Your task to perform on an android device: Do I have any events this weekend? Image 0: 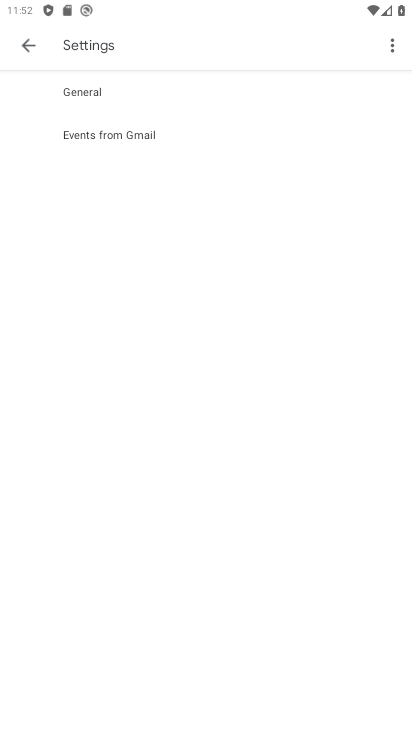
Step 0: press home button
Your task to perform on an android device: Do I have any events this weekend? Image 1: 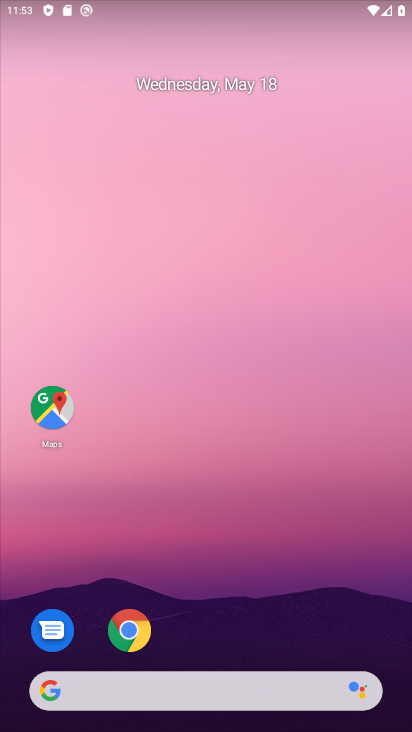
Step 1: drag from (175, 603) to (206, 185)
Your task to perform on an android device: Do I have any events this weekend? Image 2: 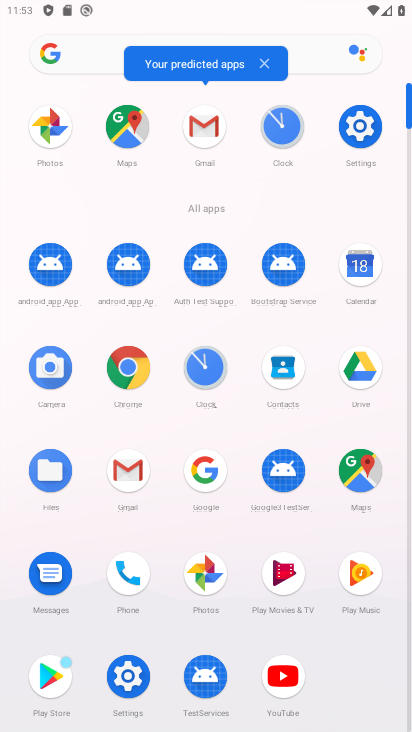
Step 2: click (364, 266)
Your task to perform on an android device: Do I have any events this weekend? Image 3: 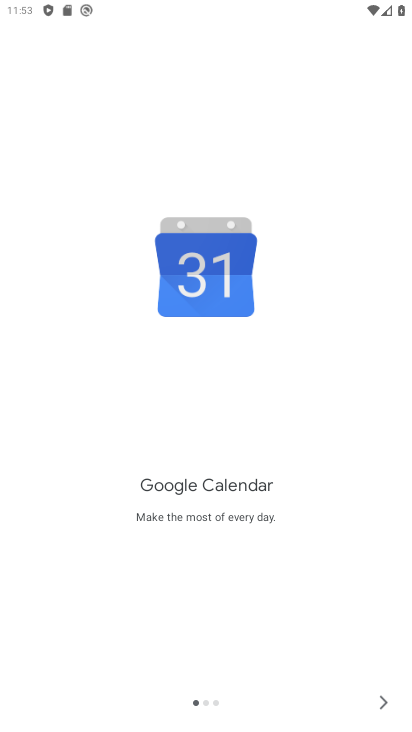
Step 3: click (380, 705)
Your task to perform on an android device: Do I have any events this weekend? Image 4: 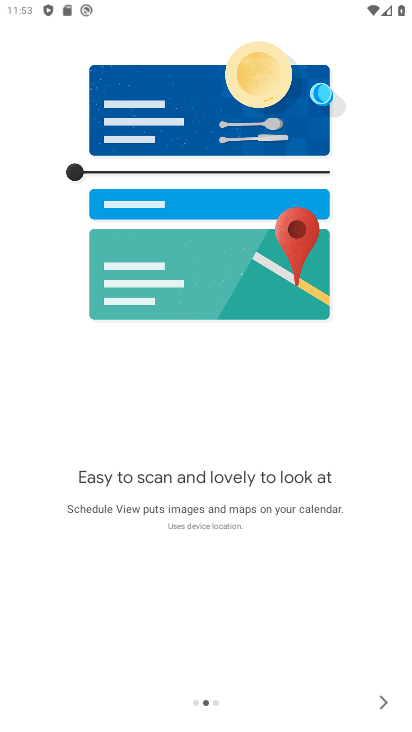
Step 4: click (380, 705)
Your task to perform on an android device: Do I have any events this weekend? Image 5: 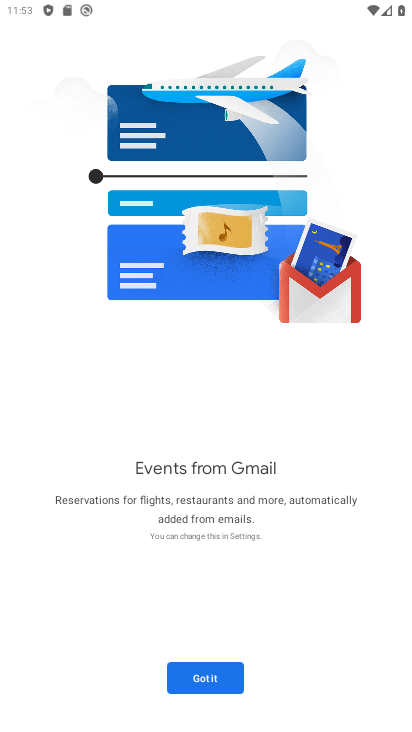
Step 5: click (204, 670)
Your task to perform on an android device: Do I have any events this weekend? Image 6: 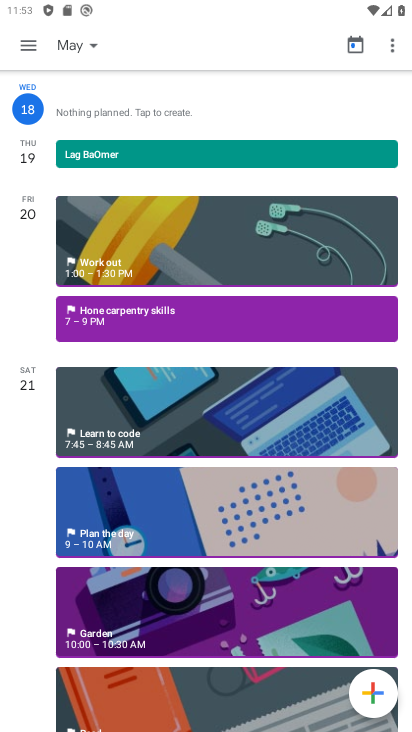
Step 6: click (79, 50)
Your task to perform on an android device: Do I have any events this weekend? Image 7: 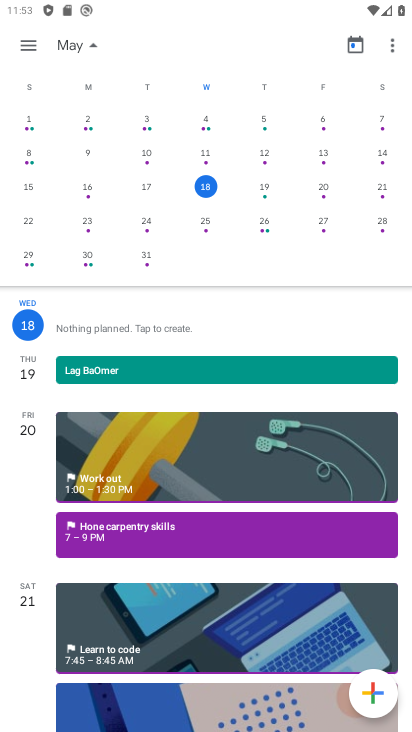
Step 7: click (383, 190)
Your task to perform on an android device: Do I have any events this weekend? Image 8: 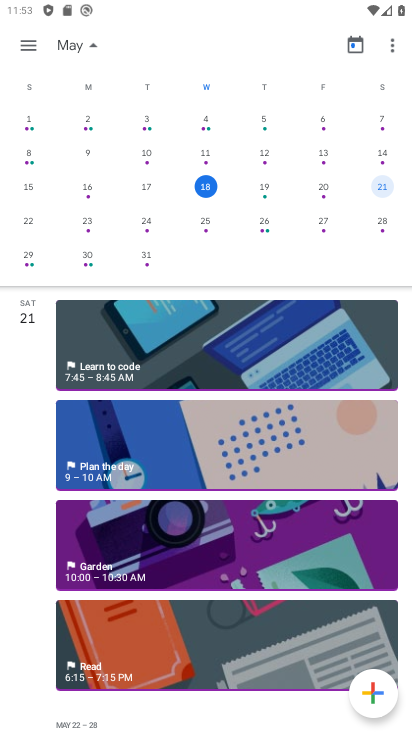
Step 8: click (28, 221)
Your task to perform on an android device: Do I have any events this weekend? Image 9: 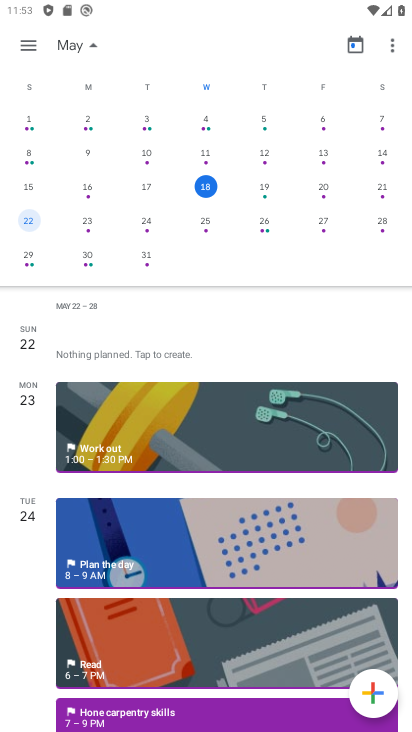
Step 9: task complete